Your task to perform on an android device: turn off wifi Image 0: 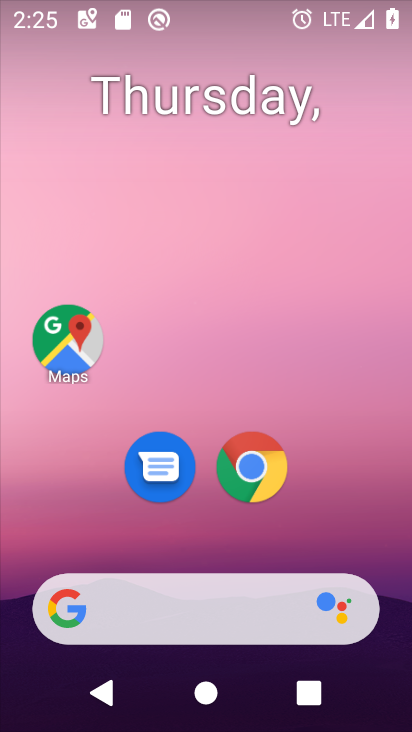
Step 0: drag from (214, 558) to (393, 247)
Your task to perform on an android device: turn off wifi Image 1: 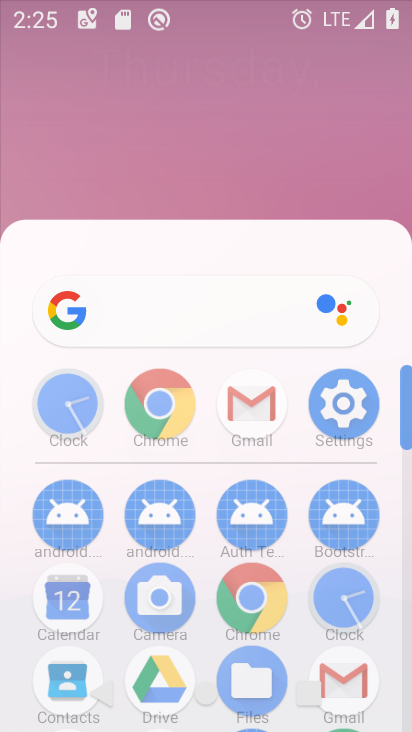
Step 1: click (348, 213)
Your task to perform on an android device: turn off wifi Image 2: 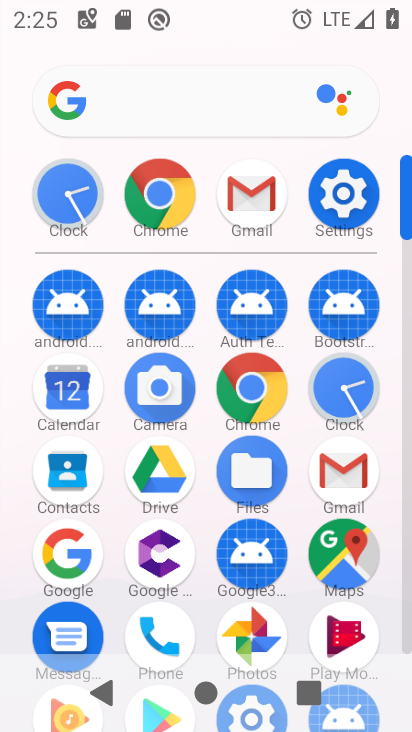
Step 2: click (338, 215)
Your task to perform on an android device: turn off wifi Image 3: 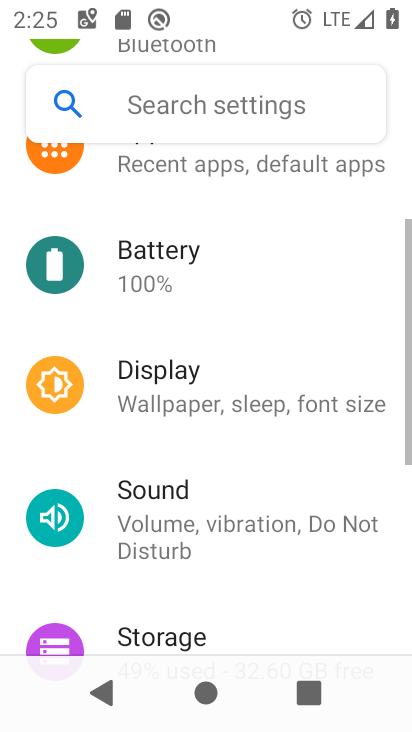
Step 3: drag from (201, 228) to (136, 717)
Your task to perform on an android device: turn off wifi Image 4: 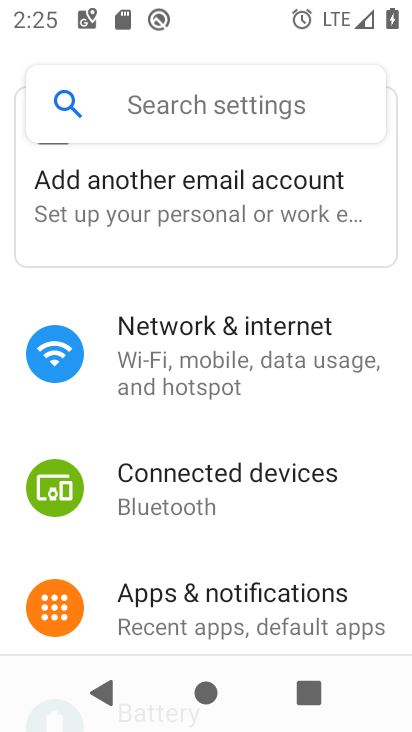
Step 4: click (158, 334)
Your task to perform on an android device: turn off wifi Image 5: 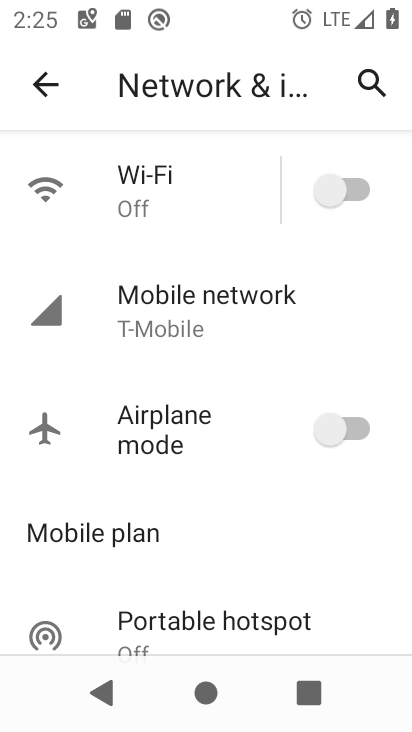
Step 5: click (175, 328)
Your task to perform on an android device: turn off wifi Image 6: 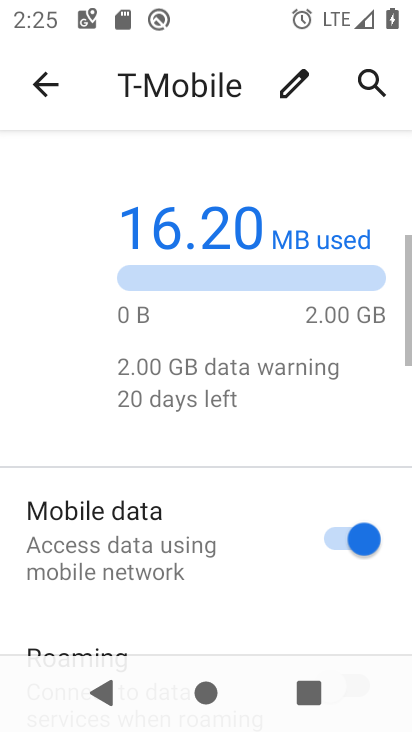
Step 6: click (41, 91)
Your task to perform on an android device: turn off wifi Image 7: 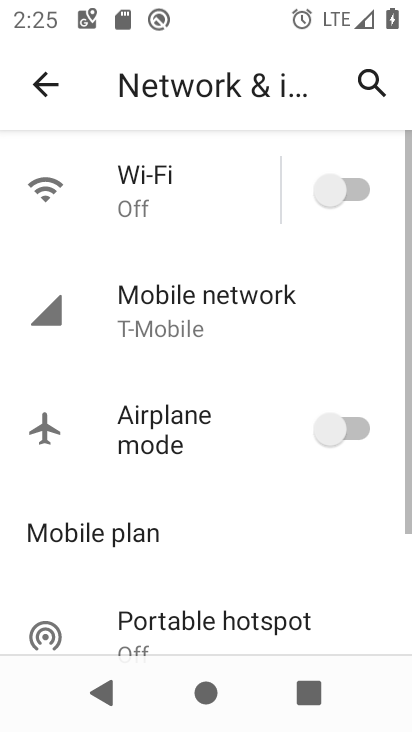
Step 7: click (144, 177)
Your task to perform on an android device: turn off wifi Image 8: 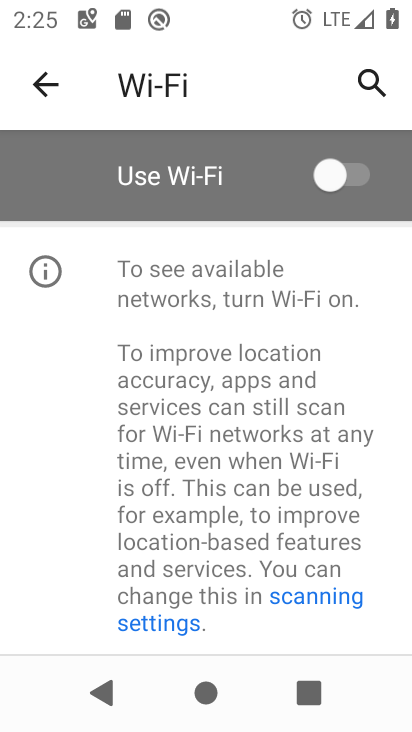
Step 8: task complete